Your task to perform on an android device: open app "Adobe Acrobat Reader: Edit PDF" (install if not already installed) and go to login screen Image 0: 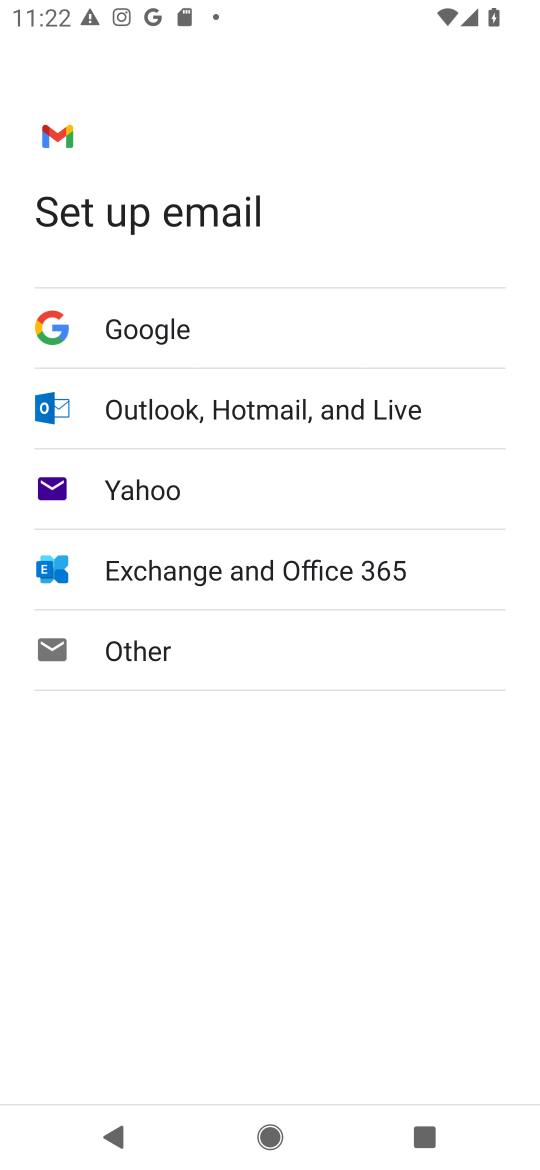
Step 0: press home button
Your task to perform on an android device: open app "Adobe Acrobat Reader: Edit PDF" (install if not already installed) and go to login screen Image 1: 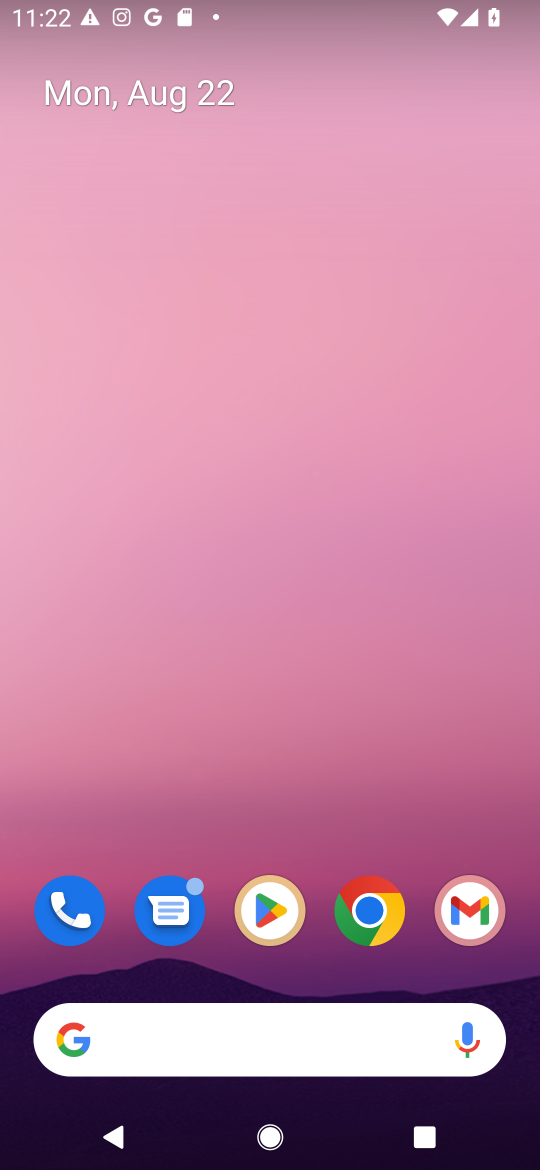
Step 1: click (243, 882)
Your task to perform on an android device: open app "Adobe Acrobat Reader: Edit PDF" (install if not already installed) and go to login screen Image 2: 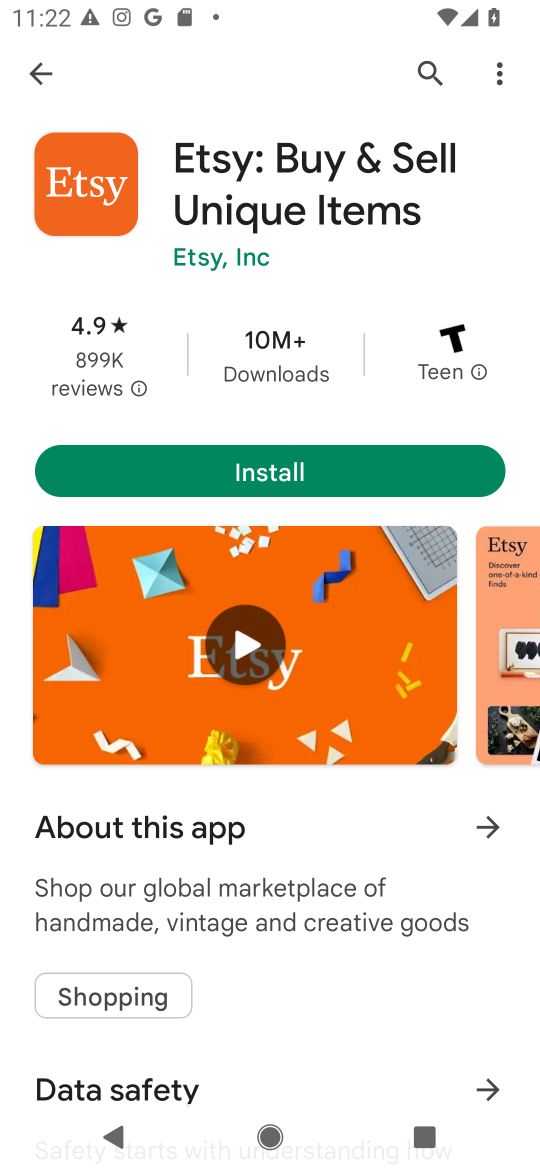
Step 2: click (427, 60)
Your task to perform on an android device: open app "Adobe Acrobat Reader: Edit PDF" (install if not already installed) and go to login screen Image 3: 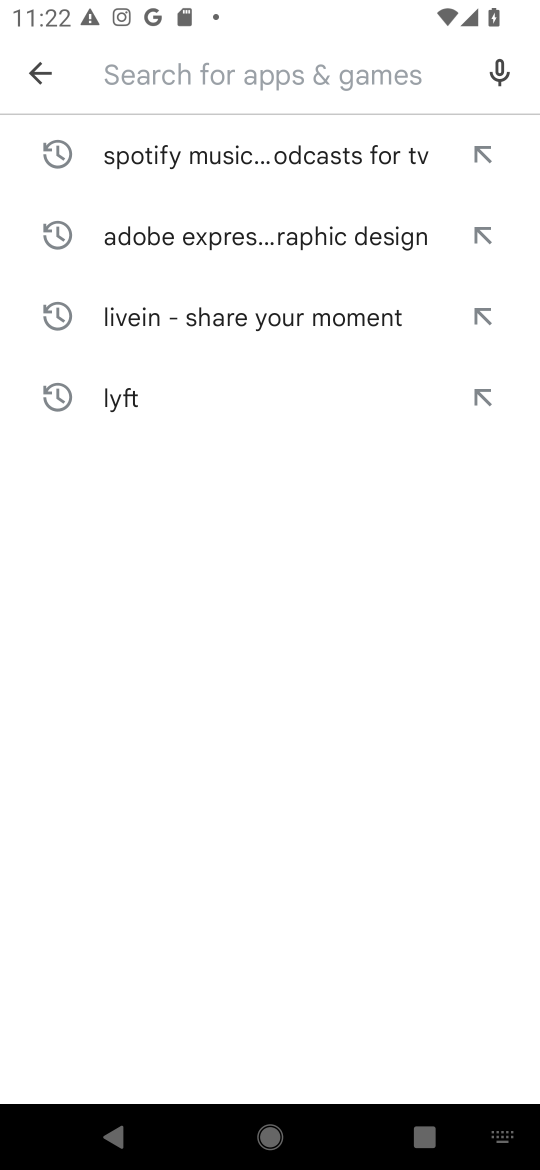
Step 3: type "Adobe Acrobat Reader: Edit PDF"
Your task to perform on an android device: open app "Adobe Acrobat Reader: Edit PDF" (install if not already installed) and go to login screen Image 4: 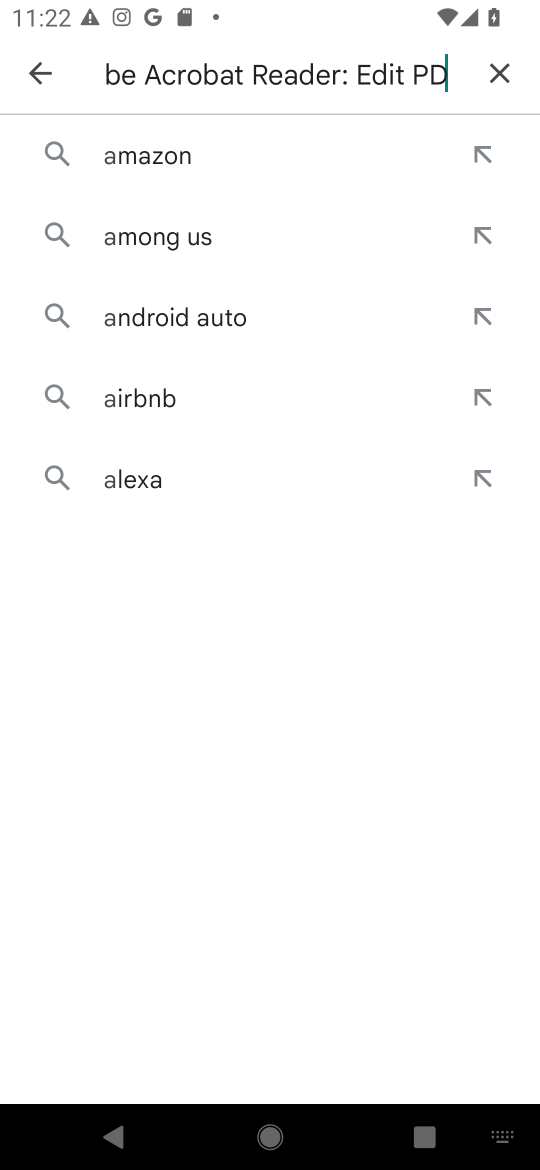
Step 4: type ""
Your task to perform on an android device: open app "Adobe Acrobat Reader: Edit PDF" (install if not already installed) and go to login screen Image 5: 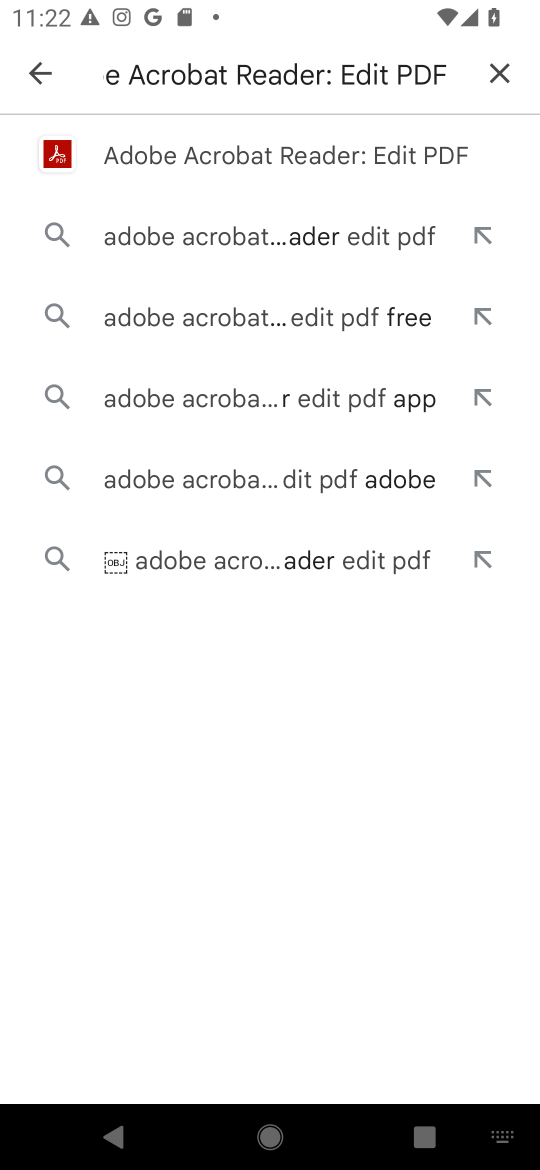
Step 5: click (257, 143)
Your task to perform on an android device: open app "Adobe Acrobat Reader: Edit PDF" (install if not already installed) and go to login screen Image 6: 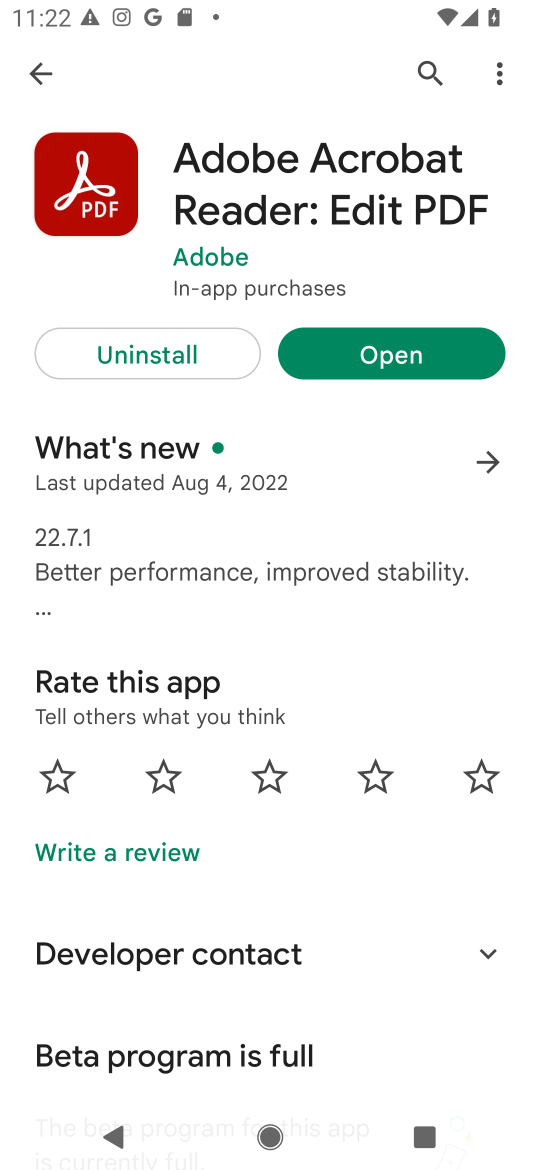
Step 6: click (343, 356)
Your task to perform on an android device: open app "Adobe Acrobat Reader: Edit PDF" (install if not already installed) and go to login screen Image 7: 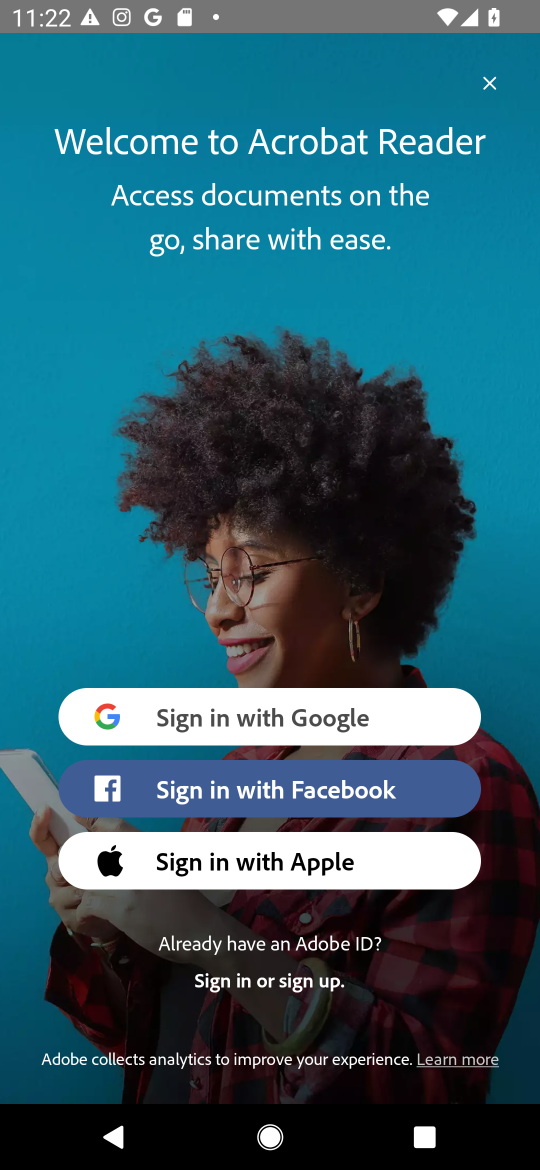
Step 7: task complete